Your task to perform on an android device: open chrome and create a bookmark for the current page Image 0: 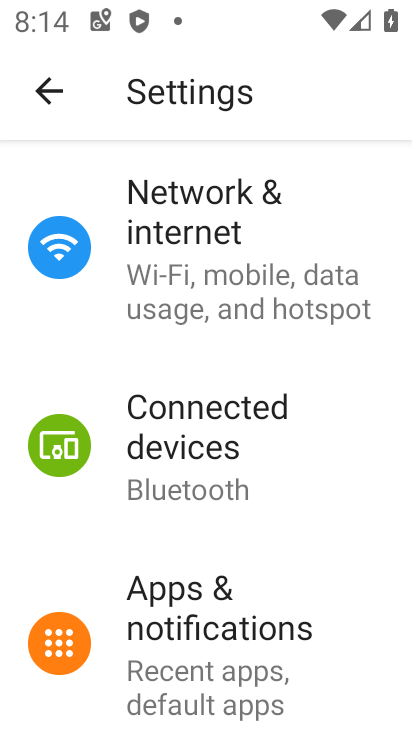
Step 0: press home button
Your task to perform on an android device: open chrome and create a bookmark for the current page Image 1: 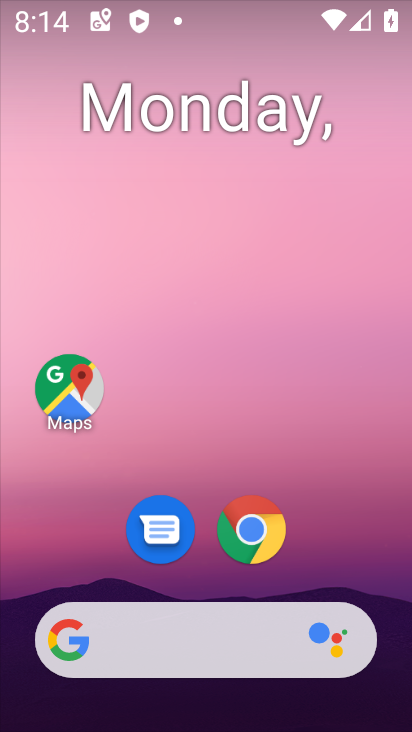
Step 1: press back button
Your task to perform on an android device: open chrome and create a bookmark for the current page Image 2: 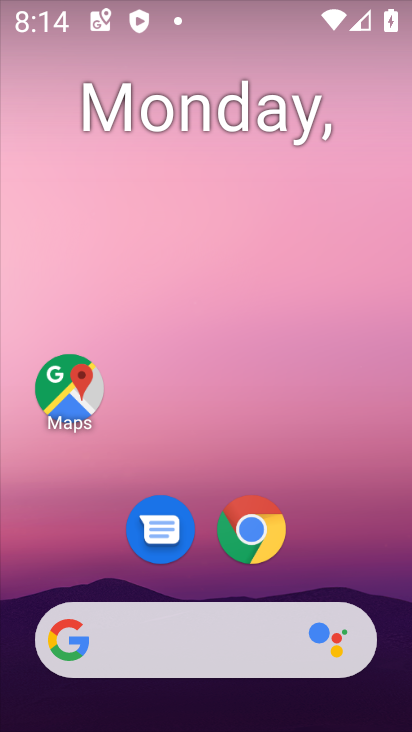
Step 2: click (264, 525)
Your task to perform on an android device: open chrome and create a bookmark for the current page Image 3: 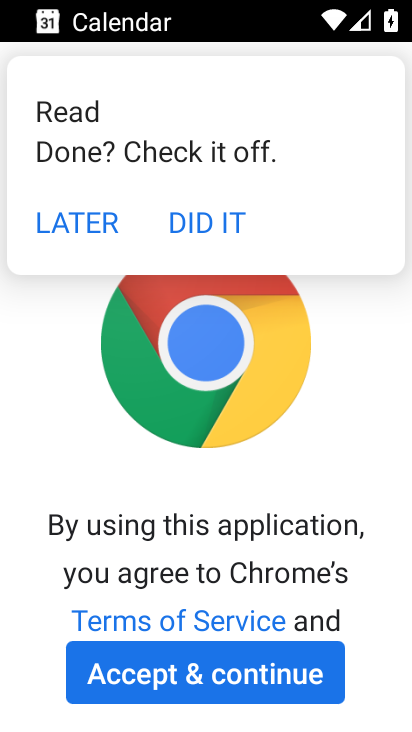
Step 3: click (112, 236)
Your task to perform on an android device: open chrome and create a bookmark for the current page Image 4: 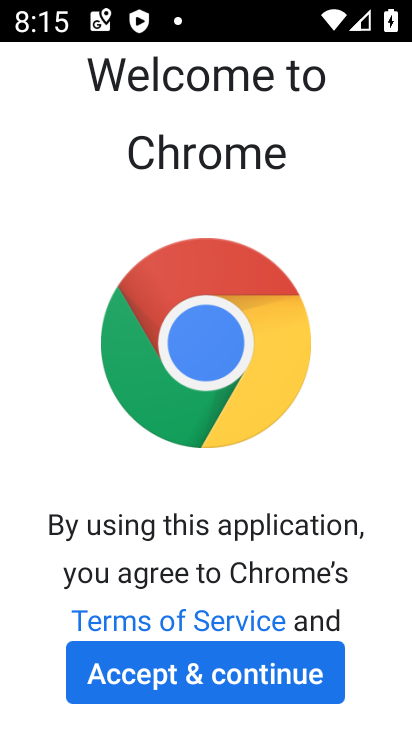
Step 4: click (211, 694)
Your task to perform on an android device: open chrome and create a bookmark for the current page Image 5: 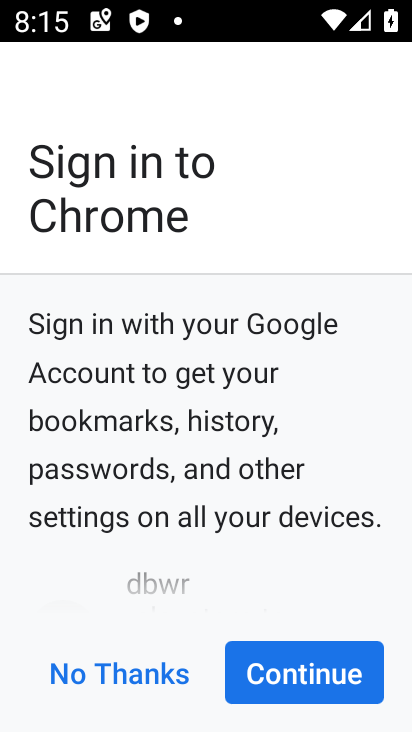
Step 5: click (212, 694)
Your task to perform on an android device: open chrome and create a bookmark for the current page Image 6: 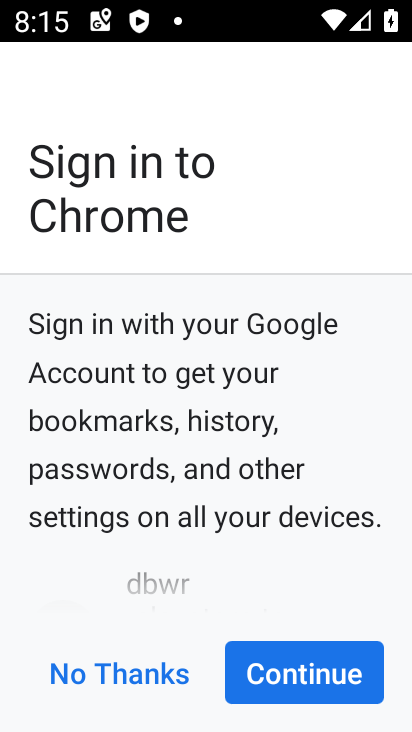
Step 6: click (307, 682)
Your task to perform on an android device: open chrome and create a bookmark for the current page Image 7: 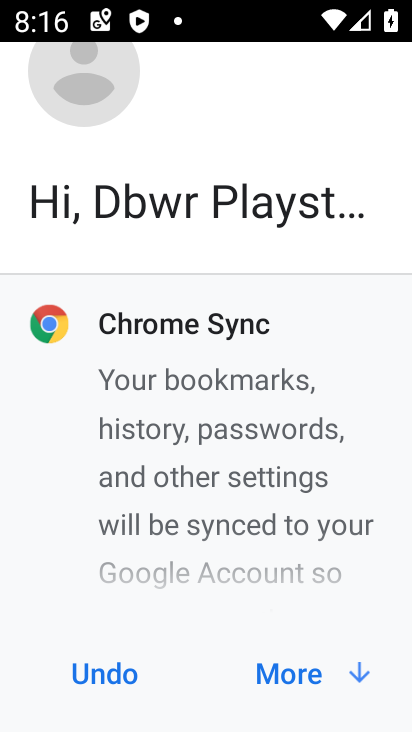
Step 7: click (285, 675)
Your task to perform on an android device: open chrome and create a bookmark for the current page Image 8: 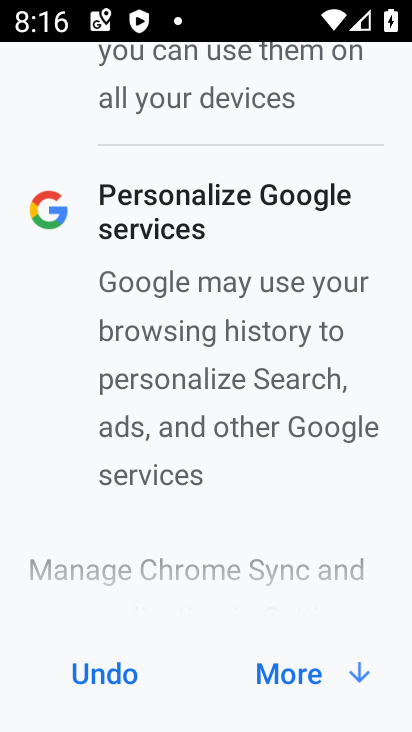
Step 8: click (285, 675)
Your task to perform on an android device: open chrome and create a bookmark for the current page Image 9: 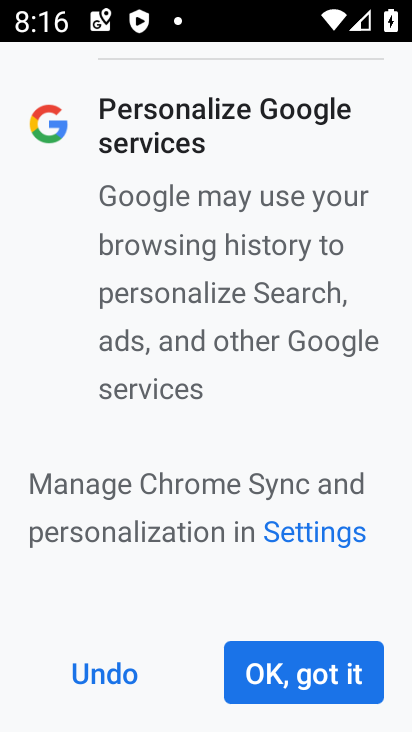
Step 9: click (285, 675)
Your task to perform on an android device: open chrome and create a bookmark for the current page Image 10: 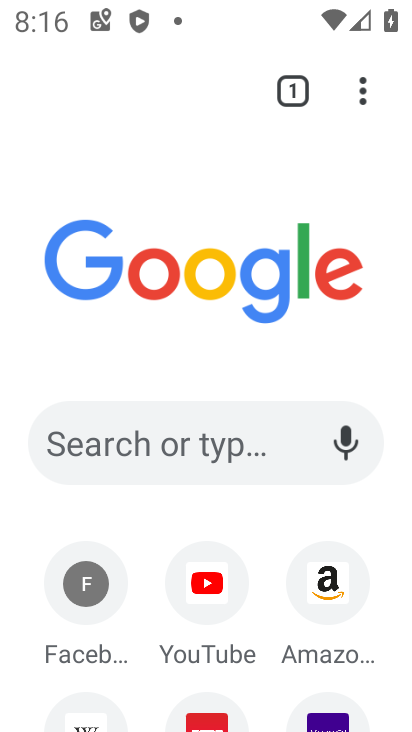
Step 10: task complete